Your task to perform on an android device: turn on showing notifications on the lock screen Image 0: 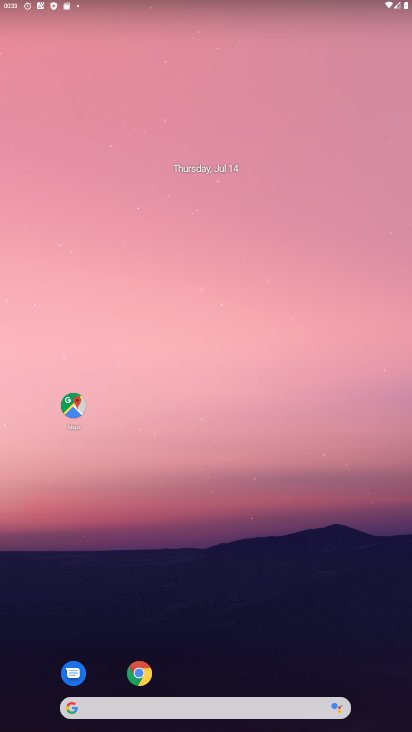
Step 0: drag from (181, 673) to (173, 227)
Your task to perform on an android device: turn on showing notifications on the lock screen Image 1: 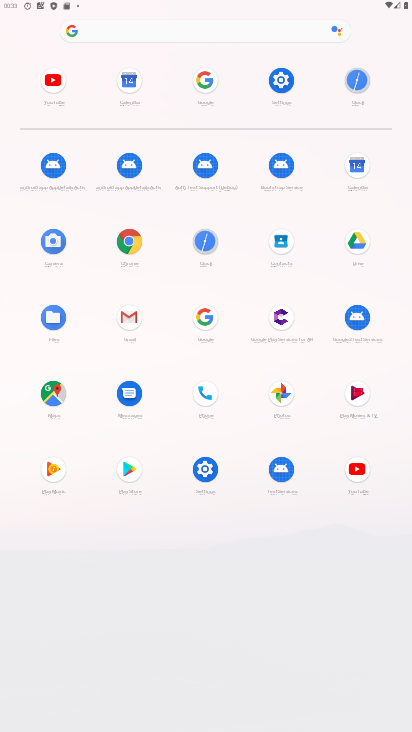
Step 1: click (263, 84)
Your task to perform on an android device: turn on showing notifications on the lock screen Image 2: 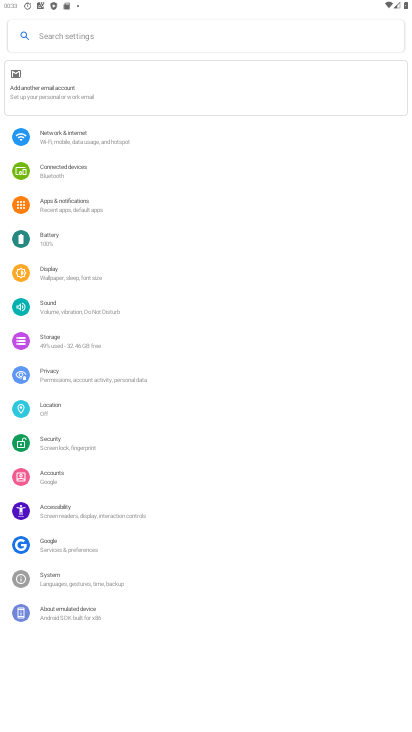
Step 2: click (87, 206)
Your task to perform on an android device: turn on showing notifications on the lock screen Image 3: 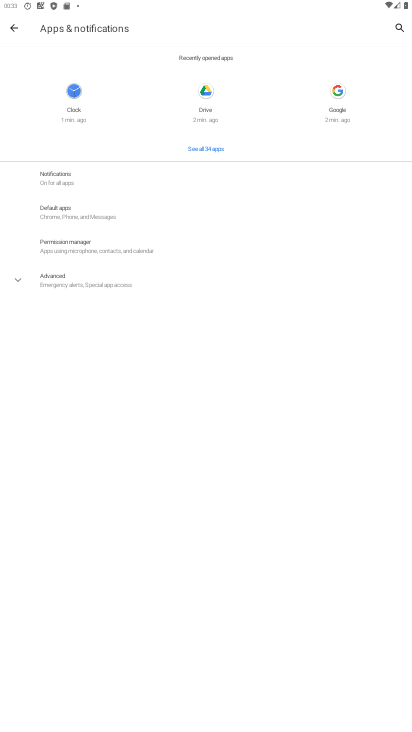
Step 3: click (74, 184)
Your task to perform on an android device: turn on showing notifications on the lock screen Image 4: 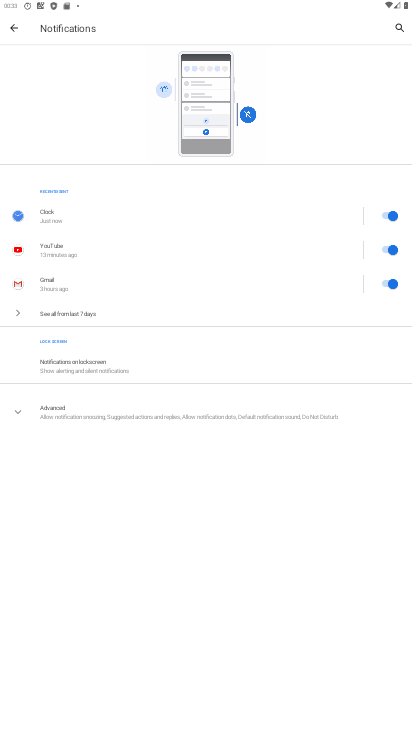
Step 4: click (117, 360)
Your task to perform on an android device: turn on showing notifications on the lock screen Image 5: 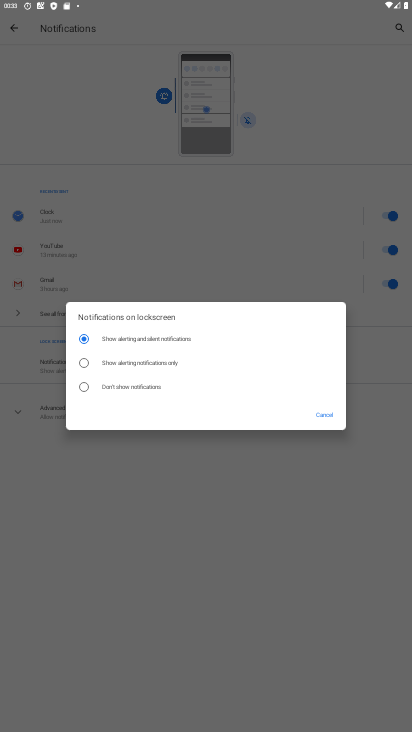
Step 5: task complete